Your task to perform on an android device: Check the settings for the Google Photos app Image 0: 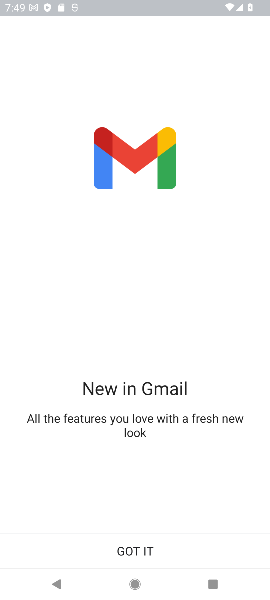
Step 0: press home button
Your task to perform on an android device: Check the settings for the Google Photos app Image 1: 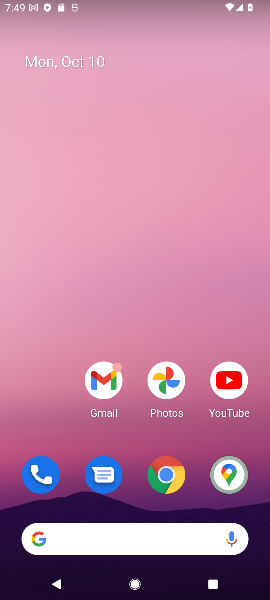
Step 1: click (160, 391)
Your task to perform on an android device: Check the settings for the Google Photos app Image 2: 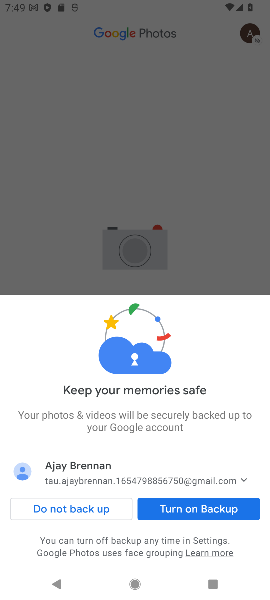
Step 2: click (99, 505)
Your task to perform on an android device: Check the settings for the Google Photos app Image 3: 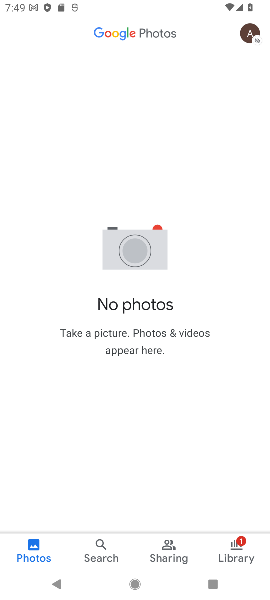
Step 3: click (245, 30)
Your task to perform on an android device: Check the settings for the Google Photos app Image 4: 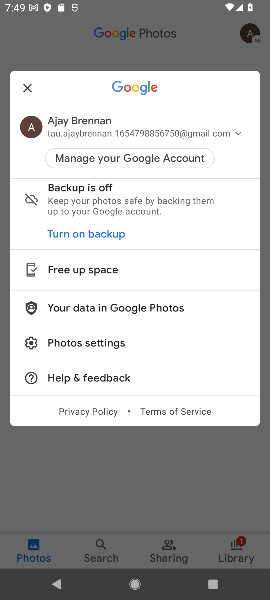
Step 4: click (110, 342)
Your task to perform on an android device: Check the settings for the Google Photos app Image 5: 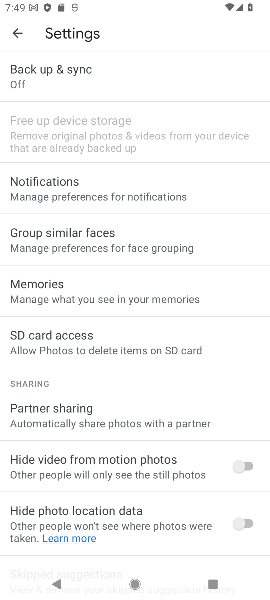
Step 5: task complete